Your task to perform on an android device: open app "Yahoo Mail" Image 0: 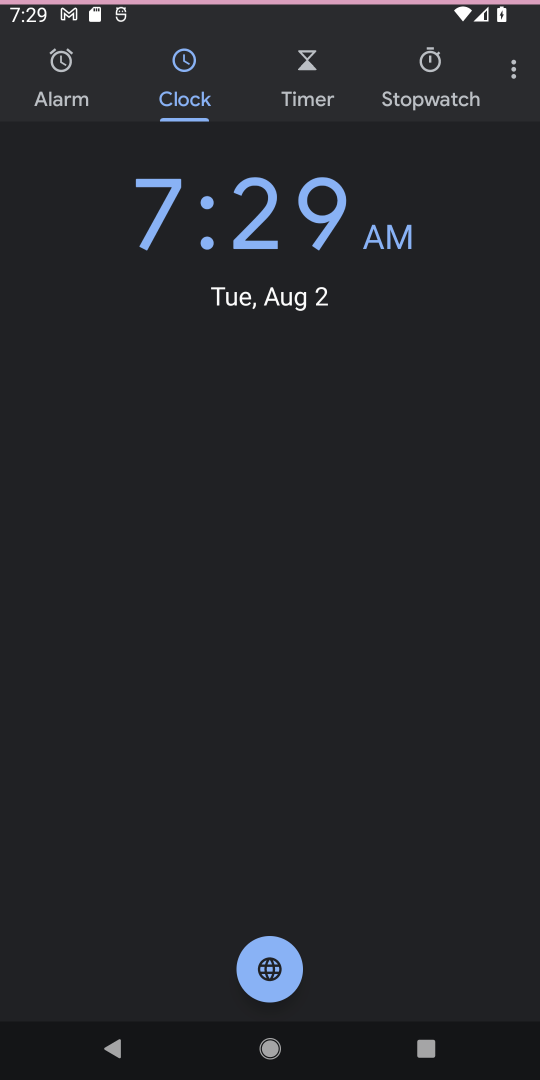
Step 0: click (384, 202)
Your task to perform on an android device: open app "Yahoo Mail" Image 1: 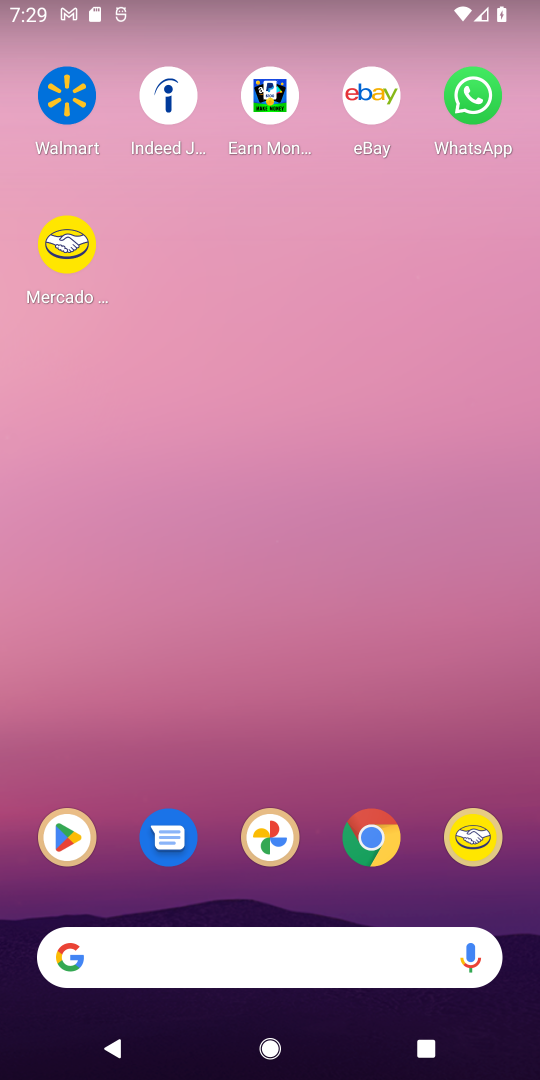
Step 1: drag from (227, 850) to (291, 190)
Your task to perform on an android device: open app "Yahoo Mail" Image 2: 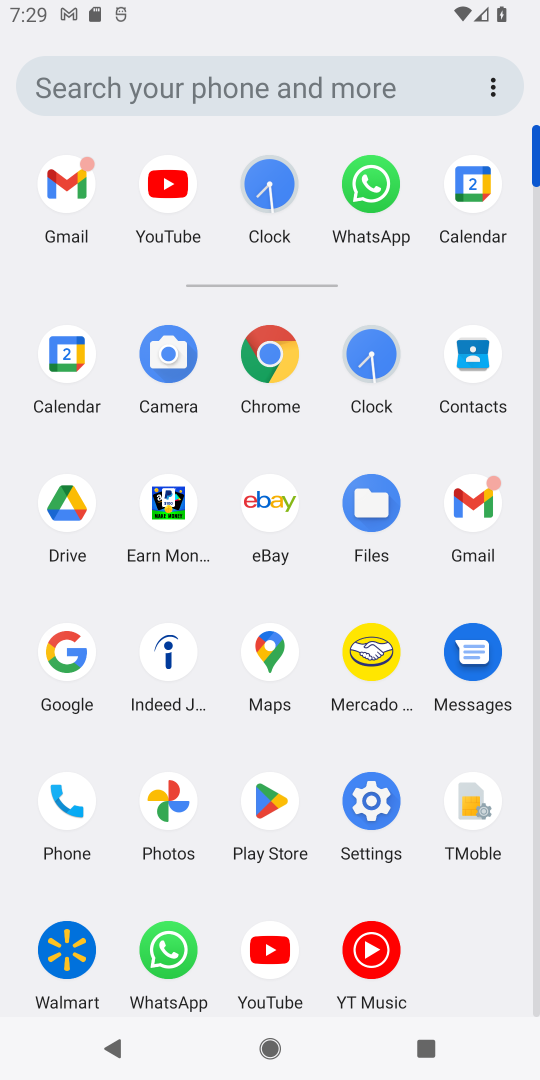
Step 2: click (271, 785)
Your task to perform on an android device: open app "Yahoo Mail" Image 3: 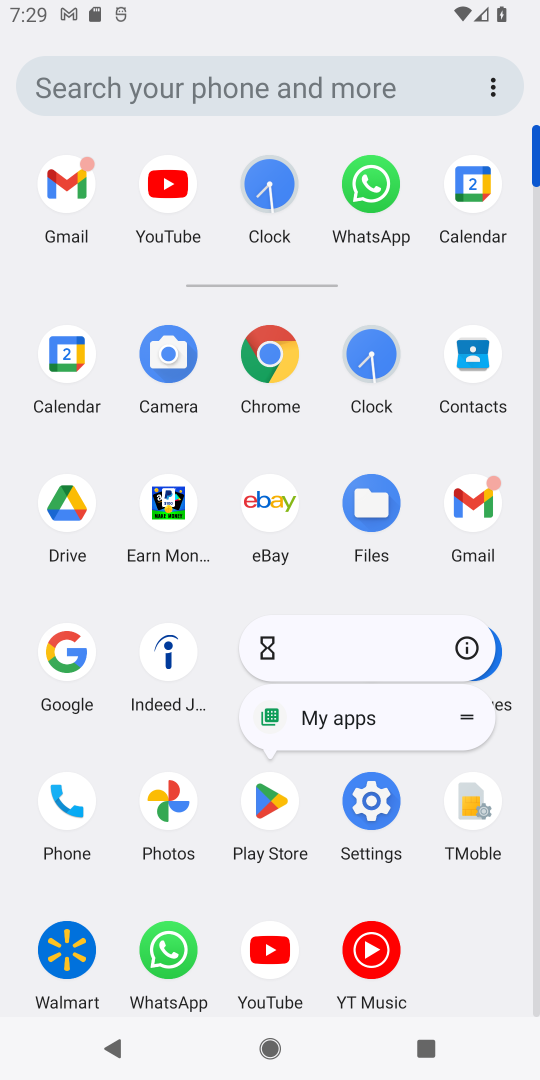
Step 3: click (472, 642)
Your task to perform on an android device: open app "Yahoo Mail" Image 4: 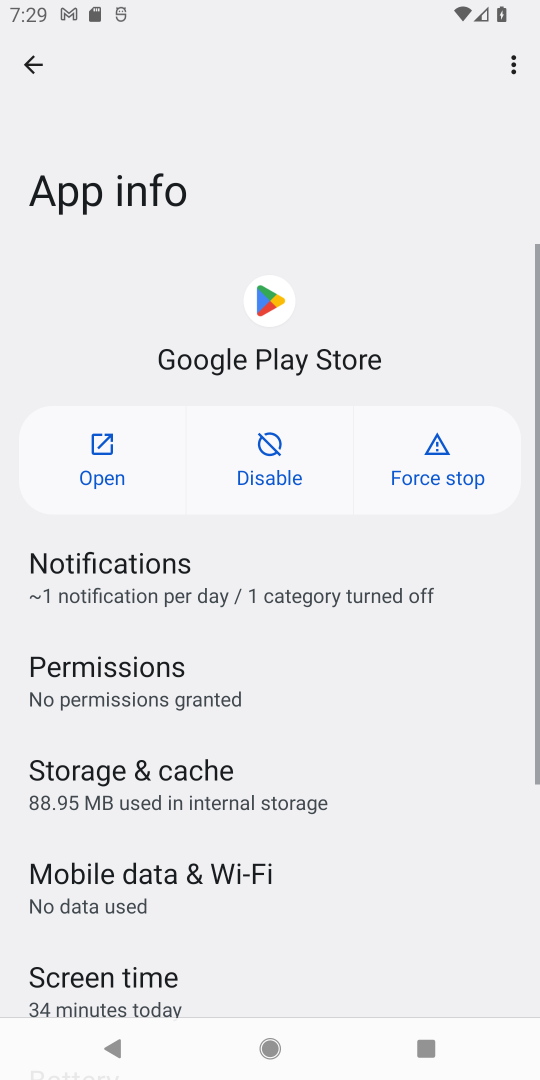
Step 4: click (96, 457)
Your task to perform on an android device: open app "Yahoo Mail" Image 5: 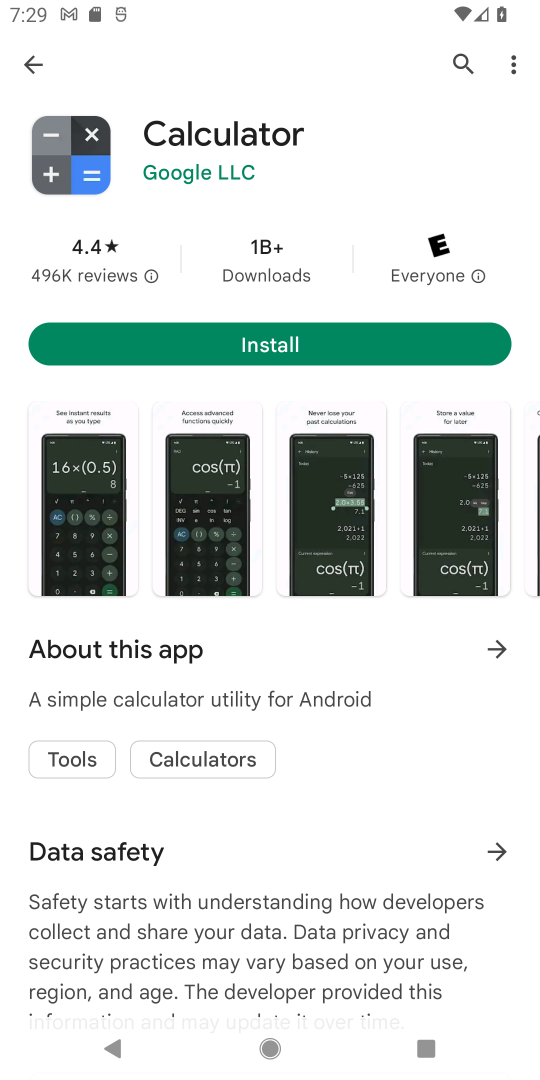
Step 5: drag from (284, 648) to (413, 99)
Your task to perform on an android device: open app "Yahoo Mail" Image 6: 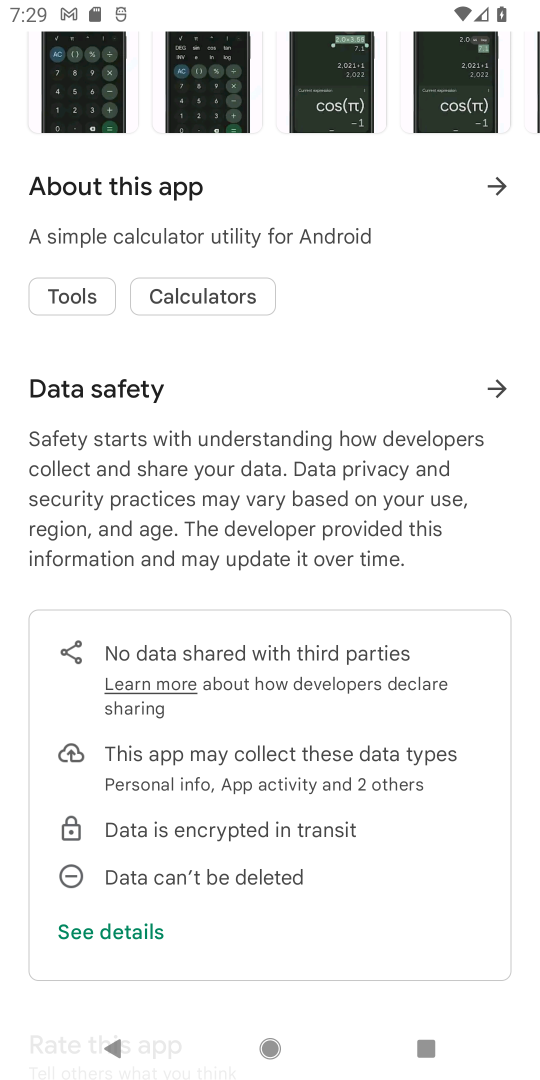
Step 6: drag from (420, 112) to (479, 691)
Your task to perform on an android device: open app "Yahoo Mail" Image 7: 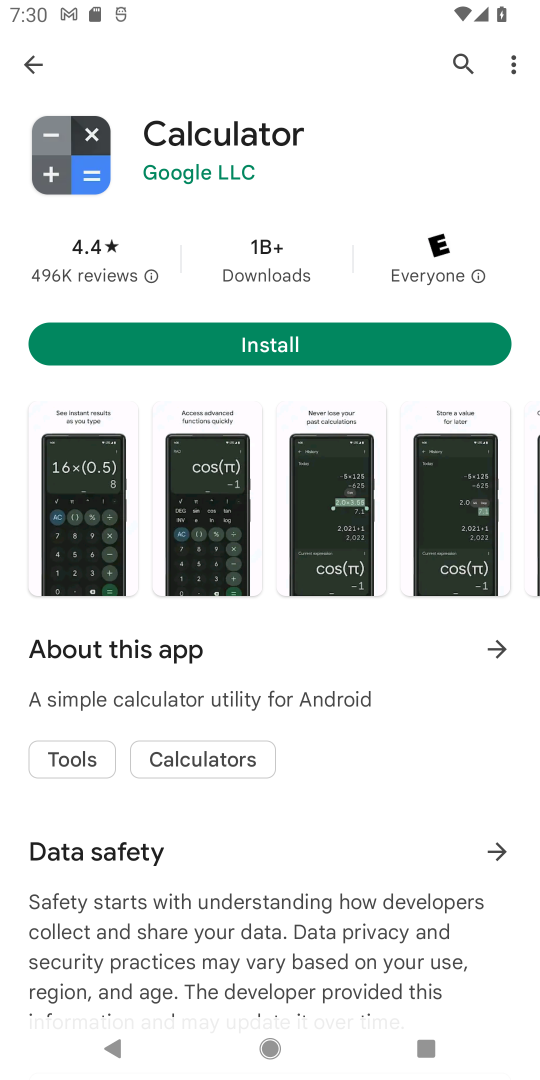
Step 7: click (456, 63)
Your task to perform on an android device: open app "Yahoo Mail" Image 8: 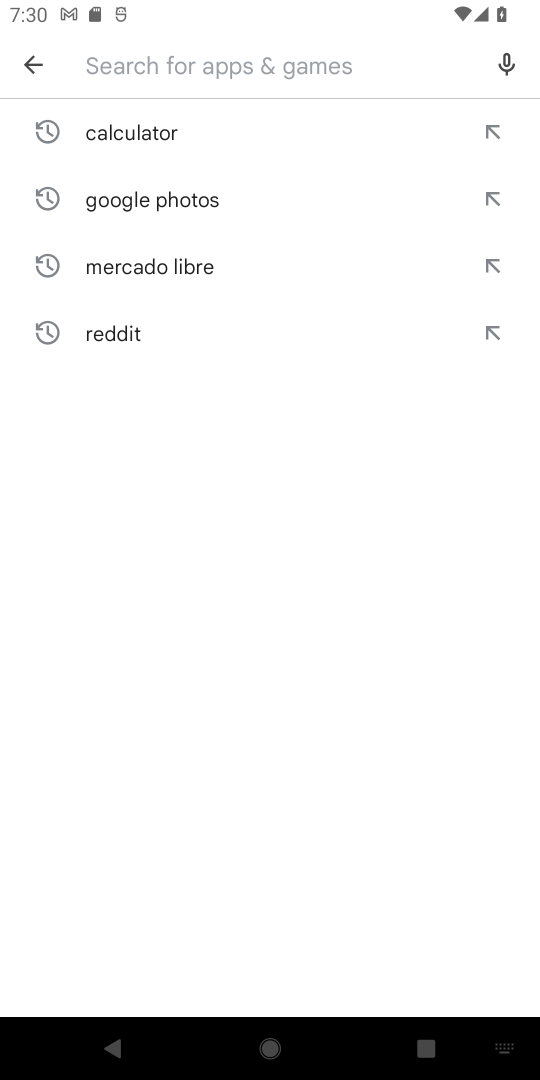
Step 8: type "Yahoo Mail"
Your task to perform on an android device: open app "Yahoo Mail" Image 9: 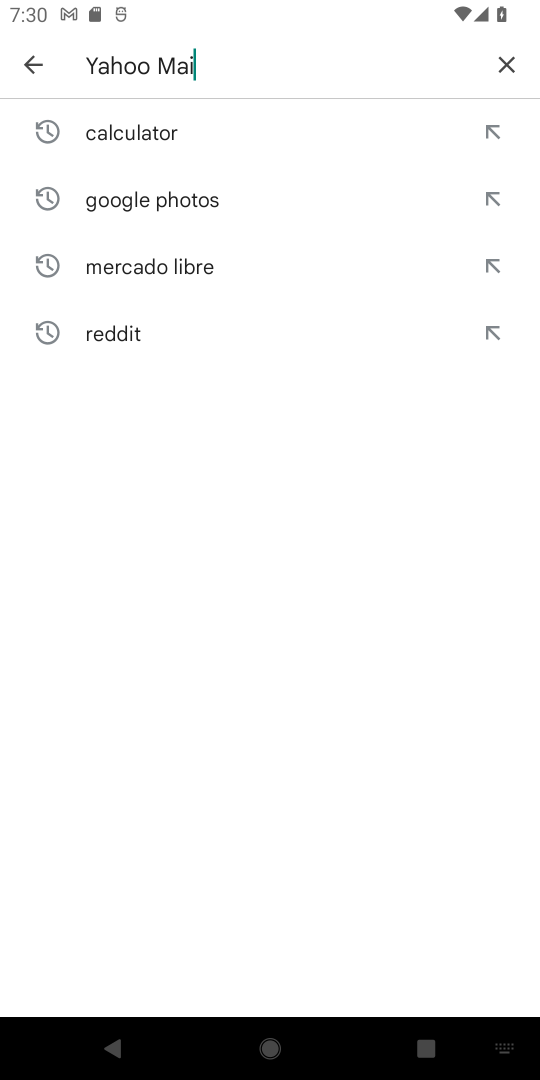
Step 9: type ""
Your task to perform on an android device: open app "Yahoo Mail" Image 10: 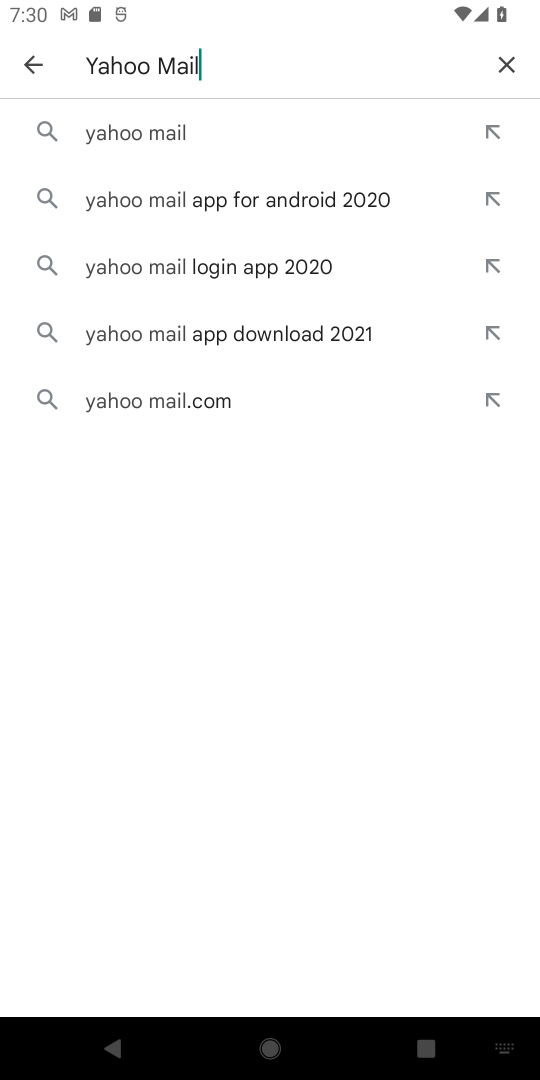
Step 10: click (152, 134)
Your task to perform on an android device: open app "Yahoo Mail" Image 11: 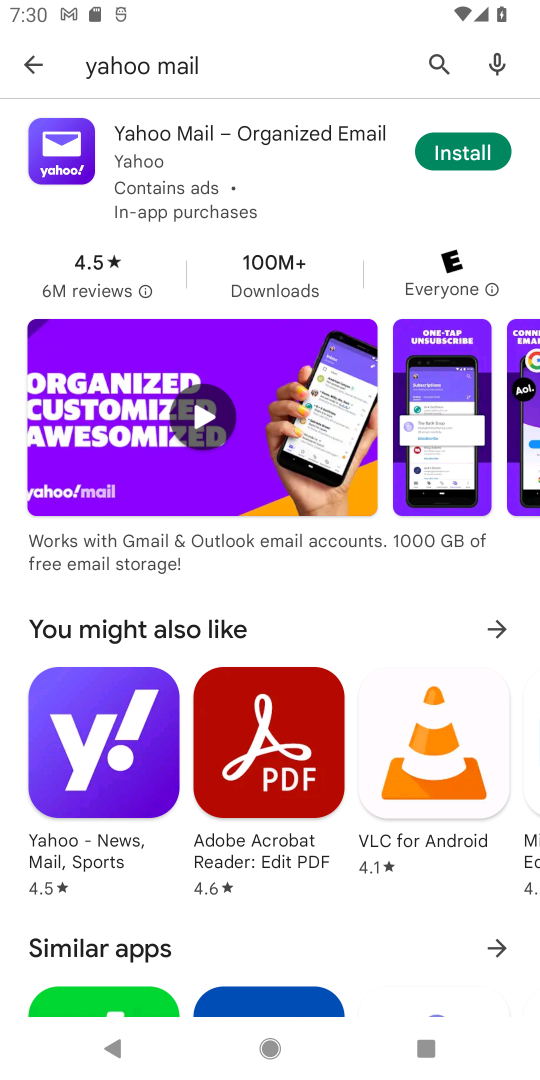
Step 11: click (134, 133)
Your task to perform on an android device: open app "Yahoo Mail" Image 12: 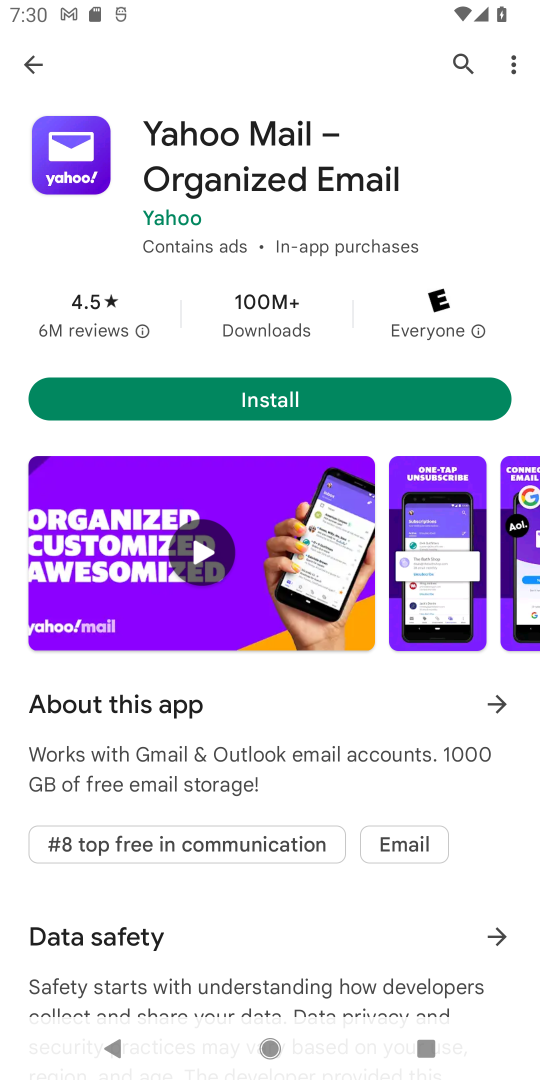
Step 12: task complete